Your task to perform on an android device: Do I have any events this weekend? Image 0: 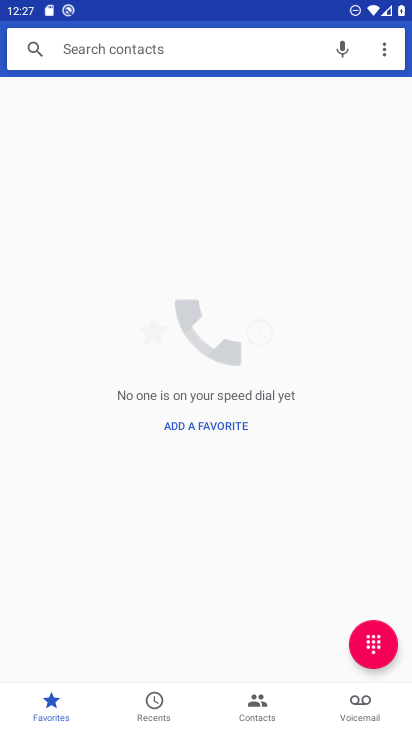
Step 0: press home button
Your task to perform on an android device: Do I have any events this weekend? Image 1: 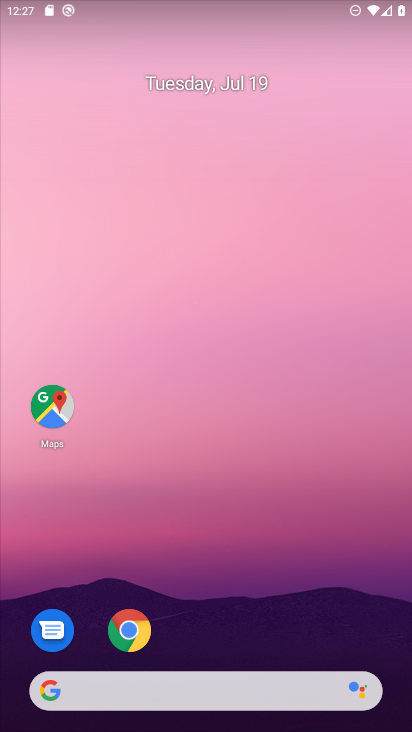
Step 1: drag from (215, 697) to (376, 127)
Your task to perform on an android device: Do I have any events this weekend? Image 2: 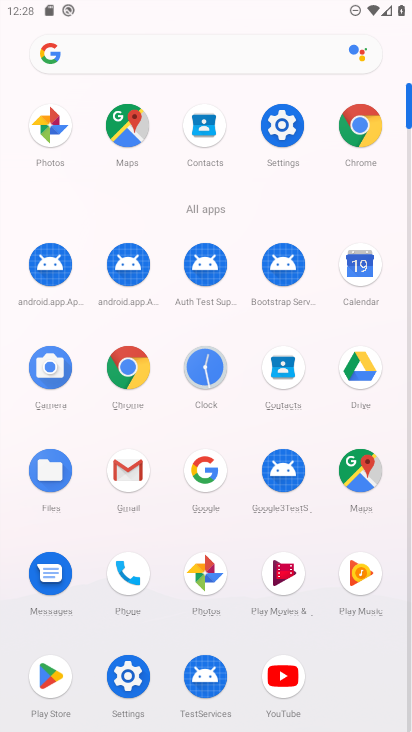
Step 2: click (354, 269)
Your task to perform on an android device: Do I have any events this weekend? Image 3: 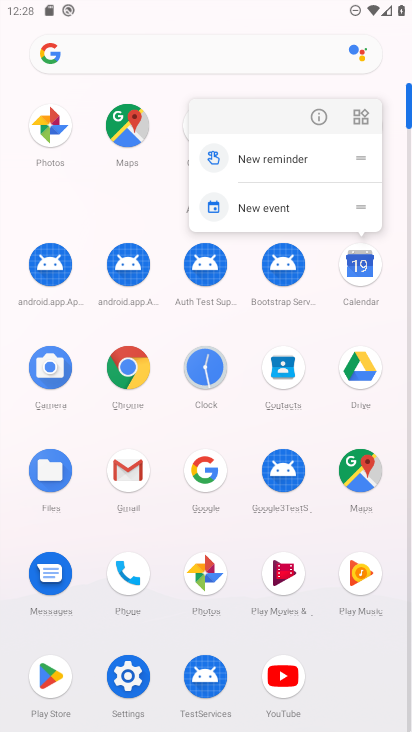
Step 3: click (358, 271)
Your task to perform on an android device: Do I have any events this weekend? Image 4: 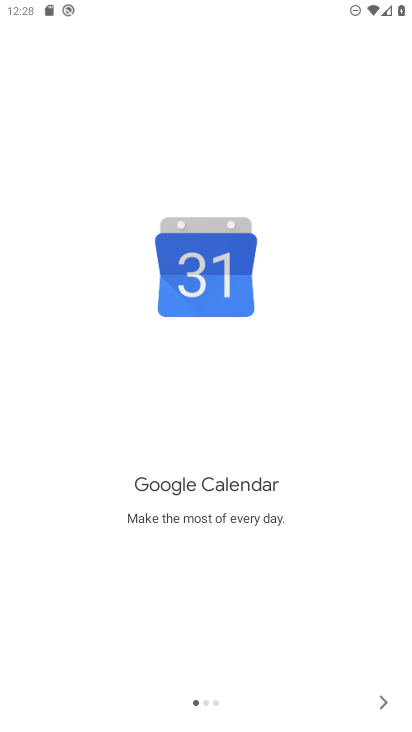
Step 4: click (380, 695)
Your task to perform on an android device: Do I have any events this weekend? Image 5: 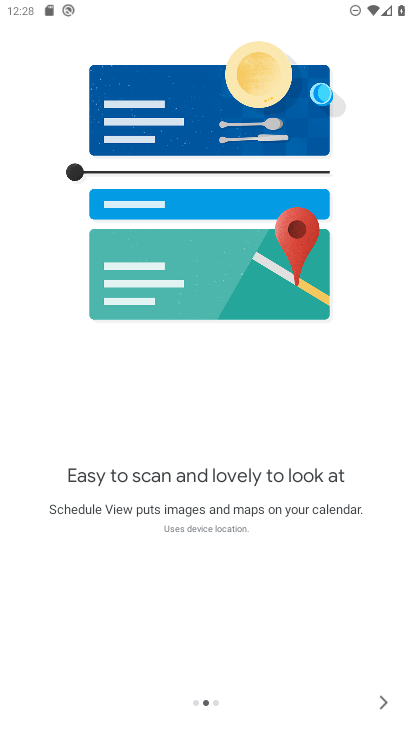
Step 5: click (378, 697)
Your task to perform on an android device: Do I have any events this weekend? Image 6: 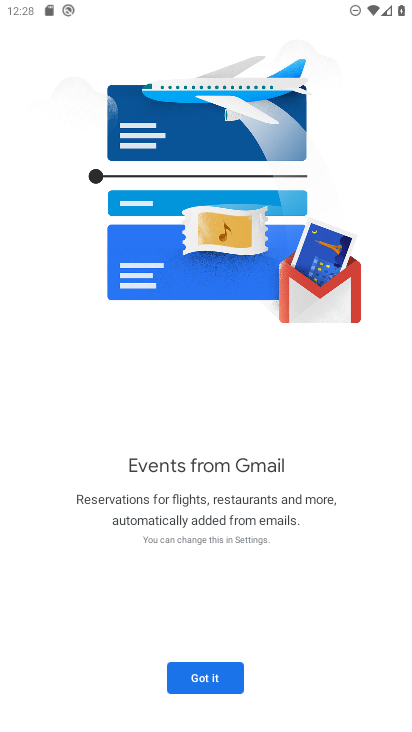
Step 6: click (204, 679)
Your task to perform on an android device: Do I have any events this weekend? Image 7: 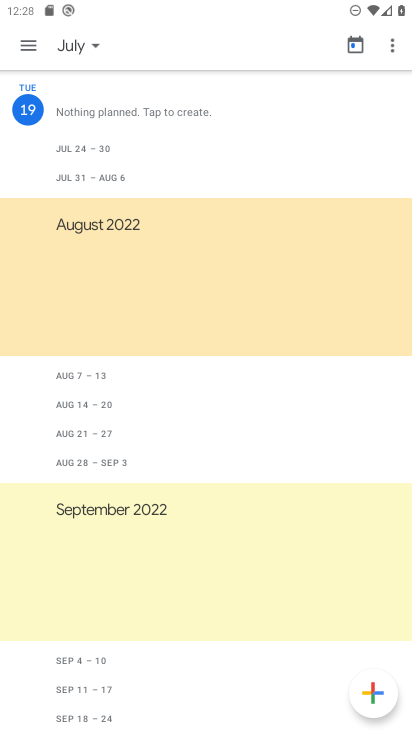
Step 7: click (78, 48)
Your task to perform on an android device: Do I have any events this weekend? Image 8: 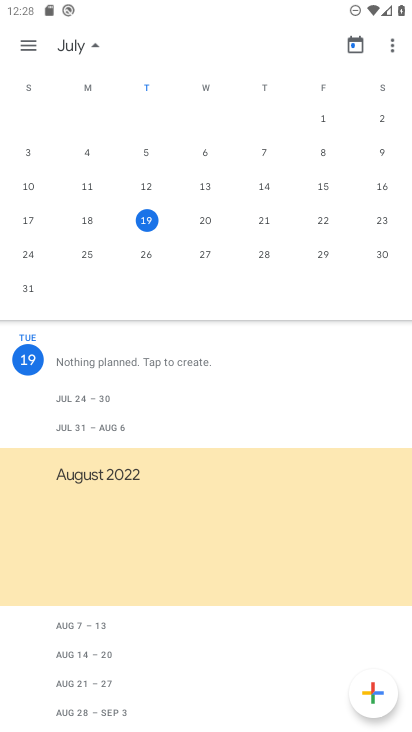
Step 8: click (381, 220)
Your task to perform on an android device: Do I have any events this weekend? Image 9: 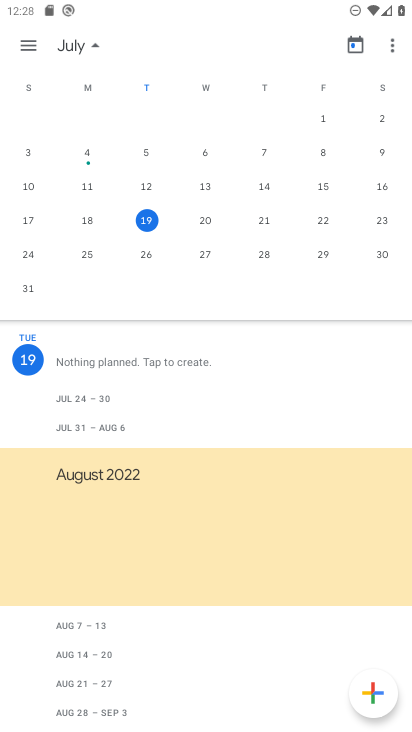
Step 9: click (381, 220)
Your task to perform on an android device: Do I have any events this weekend? Image 10: 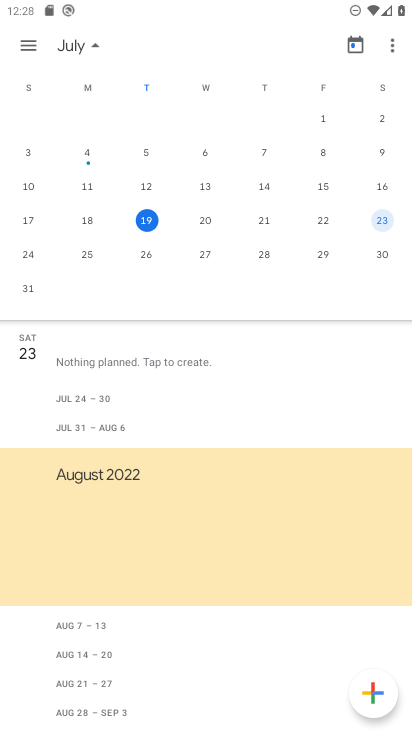
Step 10: click (30, 48)
Your task to perform on an android device: Do I have any events this weekend? Image 11: 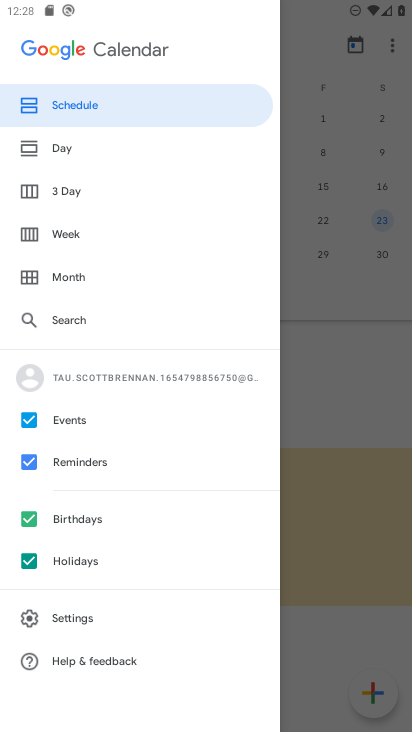
Step 11: click (61, 152)
Your task to perform on an android device: Do I have any events this weekend? Image 12: 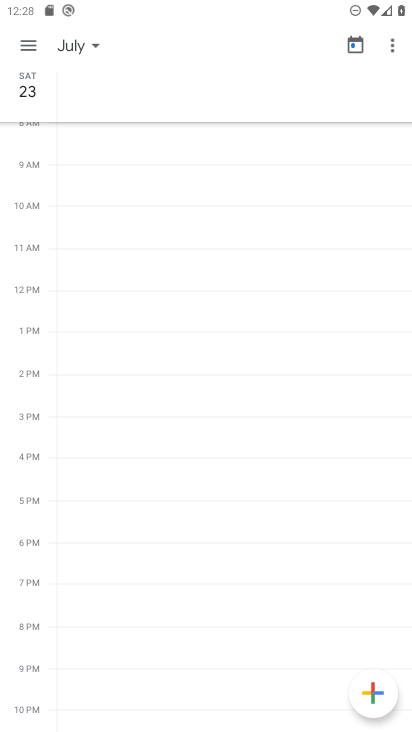
Step 12: click (35, 45)
Your task to perform on an android device: Do I have any events this weekend? Image 13: 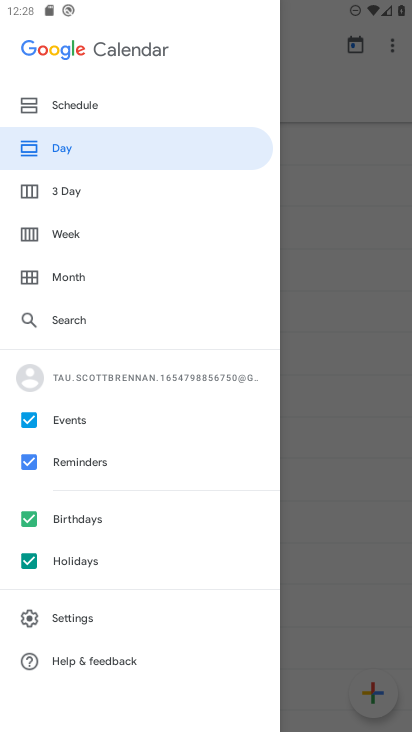
Step 13: click (89, 114)
Your task to perform on an android device: Do I have any events this weekend? Image 14: 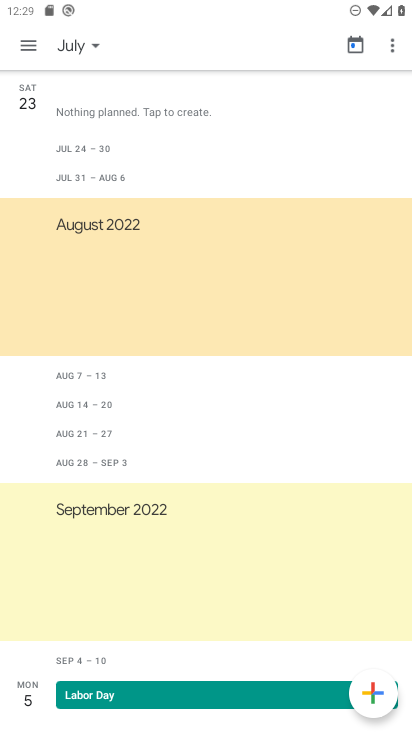
Step 14: task complete